Your task to perform on an android device: add a contact in the contacts app Image 0: 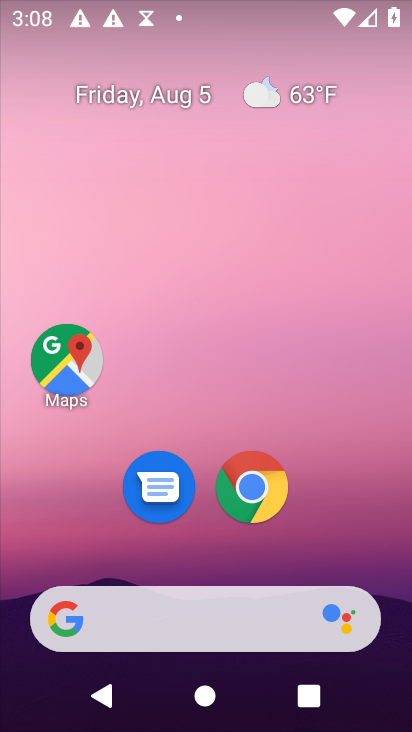
Step 0: drag from (205, 598) to (205, 144)
Your task to perform on an android device: add a contact in the contacts app Image 1: 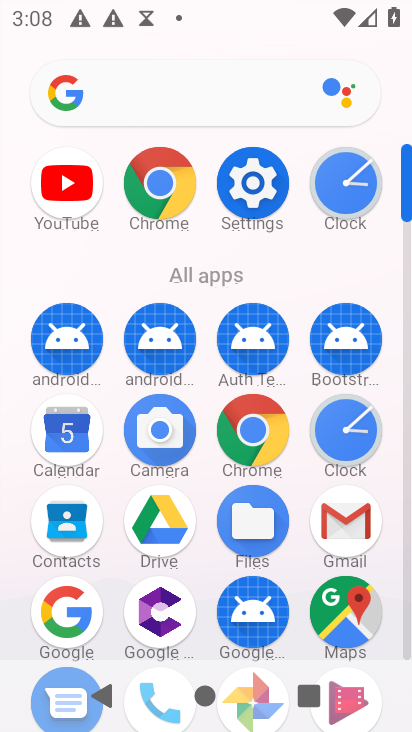
Step 1: drag from (198, 612) to (228, 194)
Your task to perform on an android device: add a contact in the contacts app Image 2: 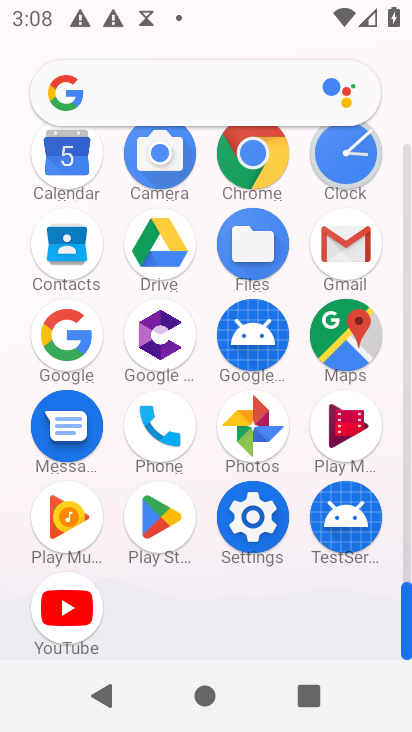
Step 2: click (151, 429)
Your task to perform on an android device: add a contact in the contacts app Image 3: 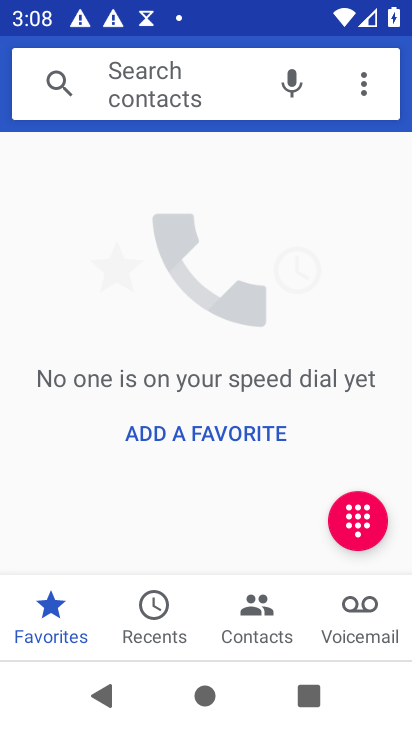
Step 3: click (192, 425)
Your task to perform on an android device: add a contact in the contacts app Image 4: 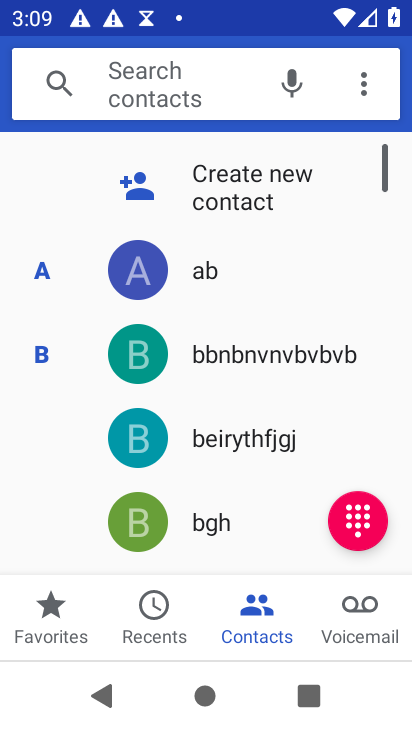
Step 4: click (222, 168)
Your task to perform on an android device: add a contact in the contacts app Image 5: 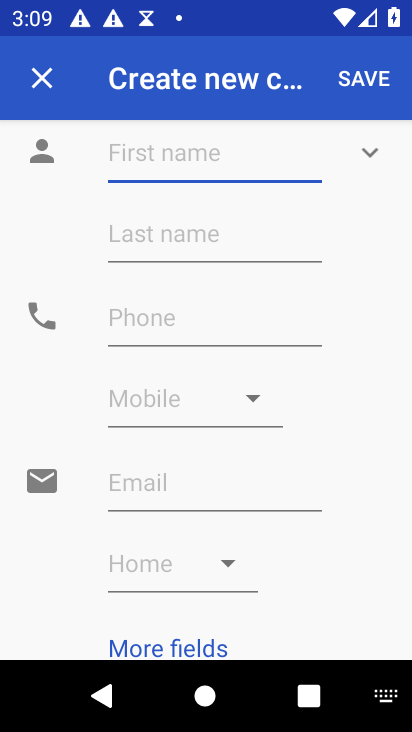
Step 5: click (175, 162)
Your task to perform on an android device: add a contact in the contacts app Image 6: 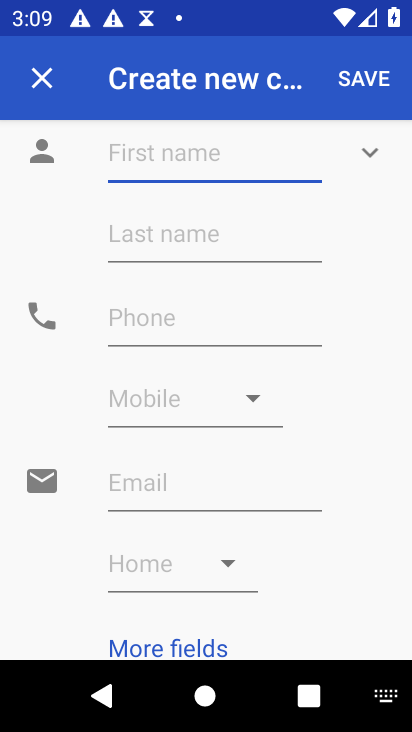
Step 6: type "uvuuuvuvuvuuvu "
Your task to perform on an android device: add a contact in the contacts app Image 7: 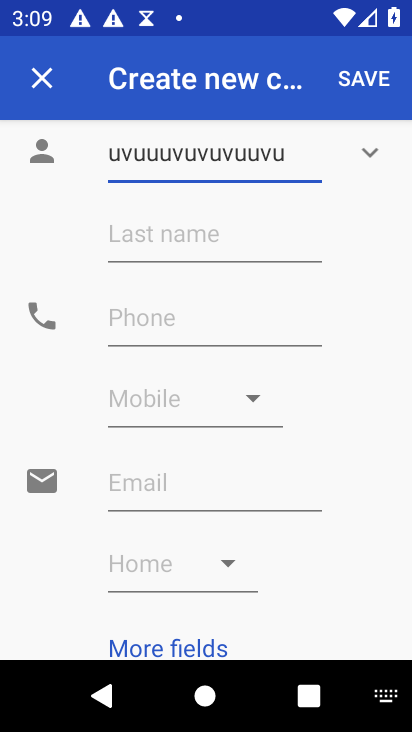
Step 7: click (154, 333)
Your task to perform on an android device: add a contact in the contacts app Image 8: 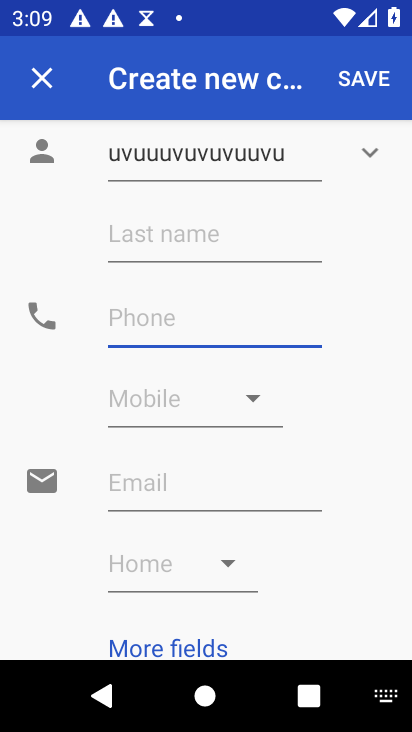
Step 8: type "9898989898 "
Your task to perform on an android device: add a contact in the contacts app Image 9: 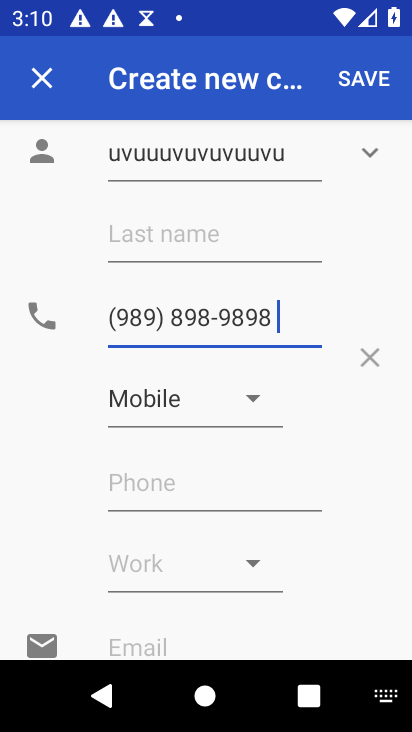
Step 9: task complete